Your task to perform on an android device: snooze an email in the gmail app Image 0: 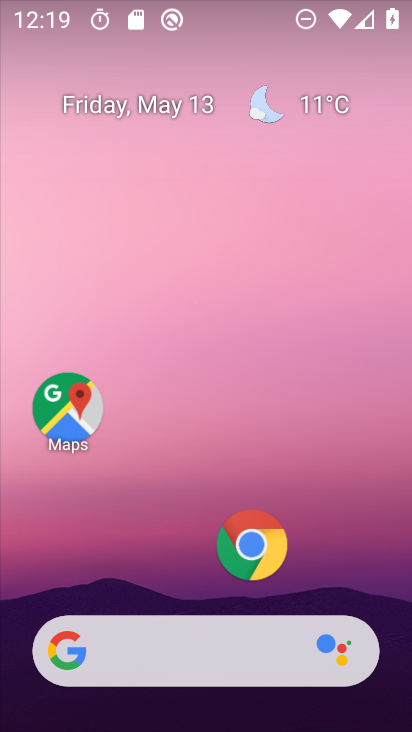
Step 0: drag from (192, 597) to (195, 11)
Your task to perform on an android device: snooze an email in the gmail app Image 1: 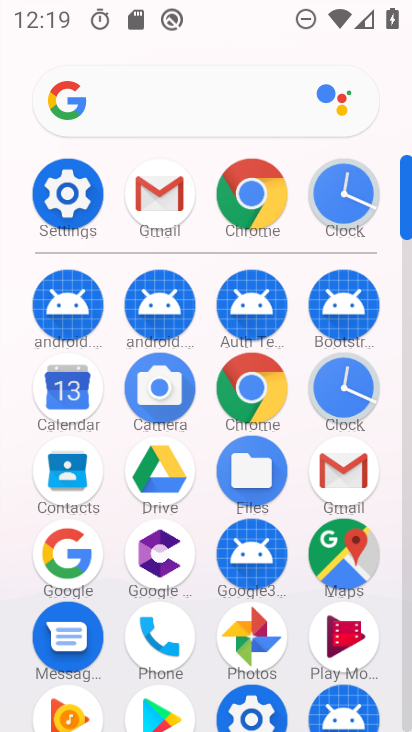
Step 1: click (156, 185)
Your task to perform on an android device: snooze an email in the gmail app Image 2: 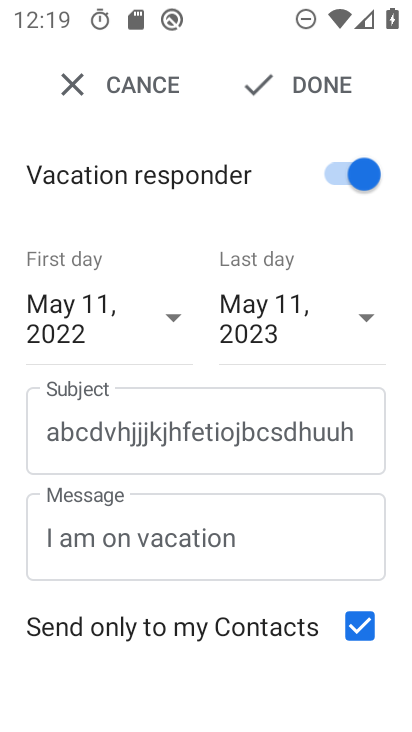
Step 2: press home button
Your task to perform on an android device: snooze an email in the gmail app Image 3: 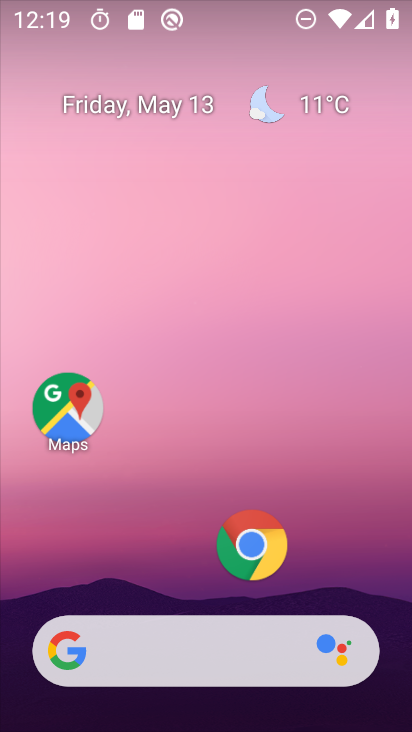
Step 3: drag from (202, 584) to (224, 48)
Your task to perform on an android device: snooze an email in the gmail app Image 4: 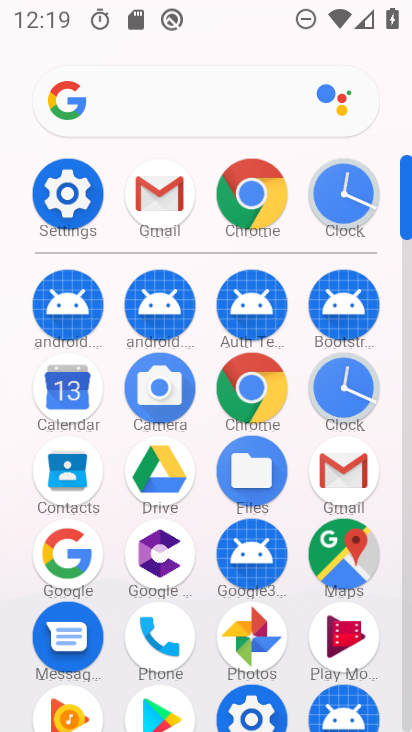
Step 4: click (342, 465)
Your task to perform on an android device: snooze an email in the gmail app Image 5: 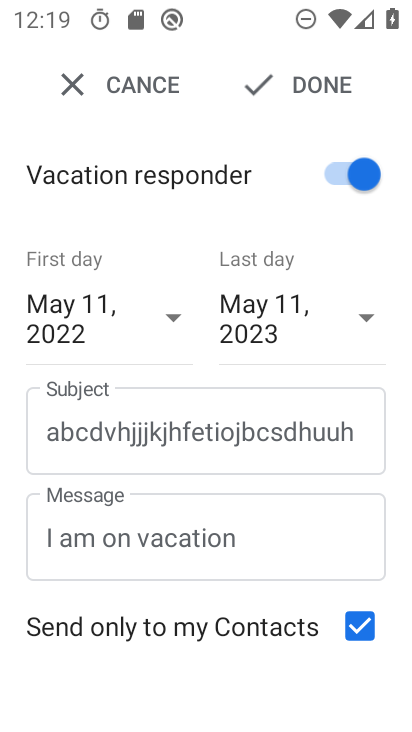
Step 5: press home button
Your task to perform on an android device: snooze an email in the gmail app Image 6: 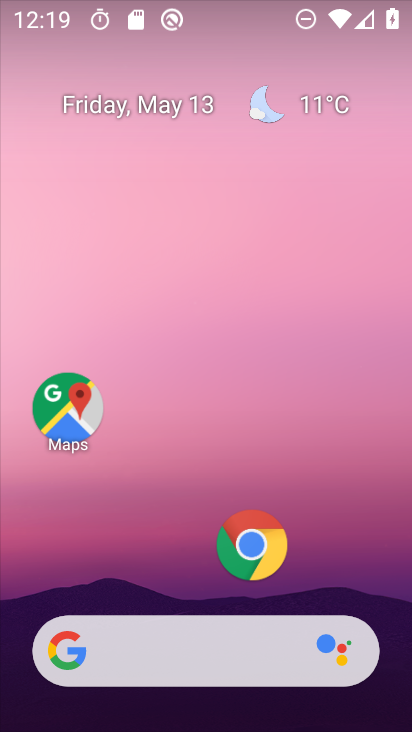
Step 6: drag from (191, 581) to (208, 85)
Your task to perform on an android device: snooze an email in the gmail app Image 7: 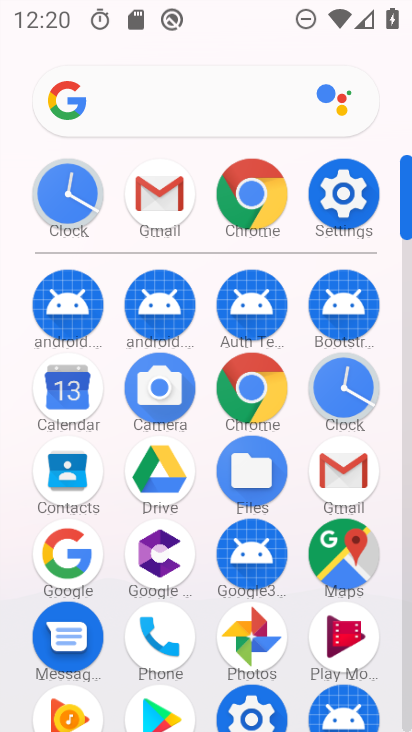
Step 7: click (341, 473)
Your task to perform on an android device: snooze an email in the gmail app Image 8: 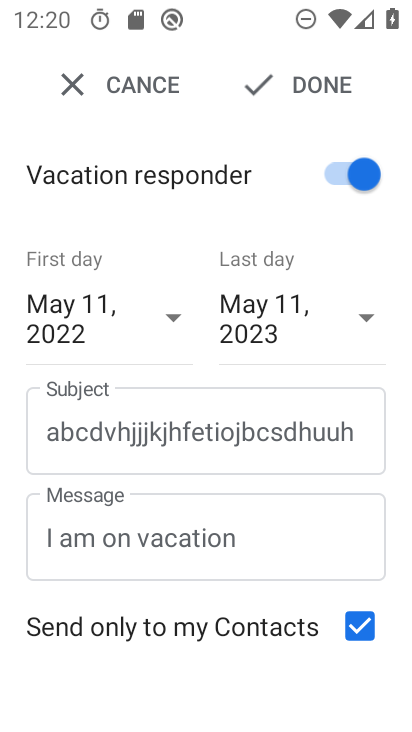
Step 8: click (302, 79)
Your task to perform on an android device: snooze an email in the gmail app Image 9: 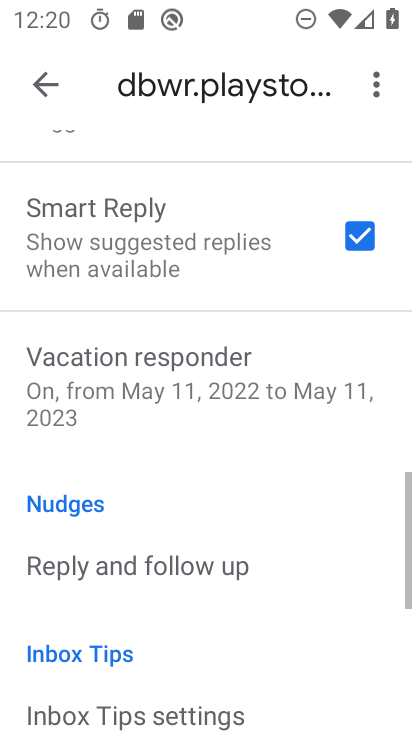
Step 9: click (43, 79)
Your task to perform on an android device: snooze an email in the gmail app Image 10: 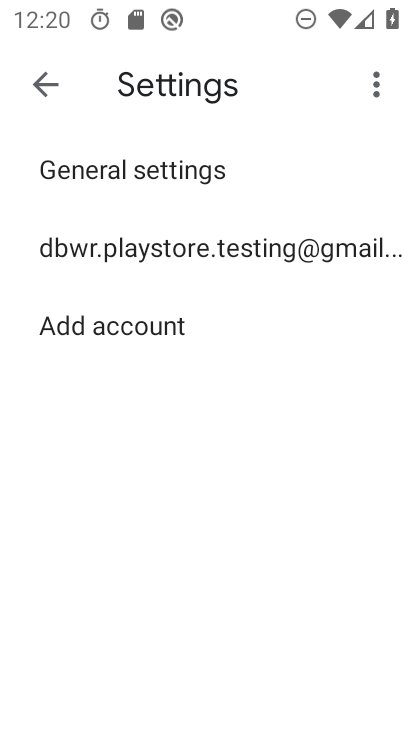
Step 10: click (43, 79)
Your task to perform on an android device: snooze an email in the gmail app Image 11: 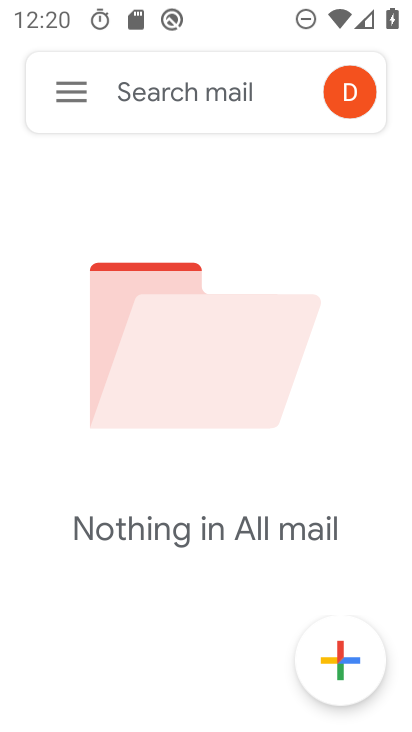
Step 11: task complete